Your task to perform on an android device: Open the map Image 0: 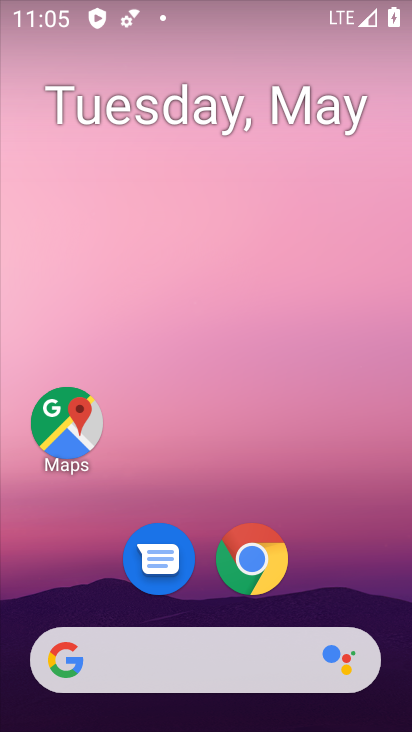
Step 0: drag from (366, 597) to (326, 115)
Your task to perform on an android device: Open the map Image 1: 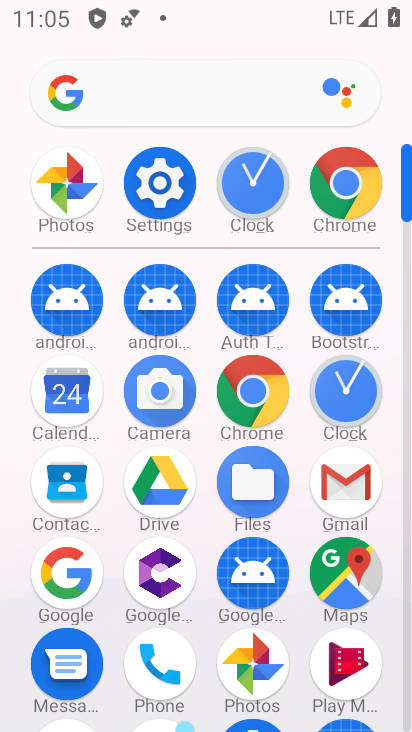
Step 1: click (338, 575)
Your task to perform on an android device: Open the map Image 2: 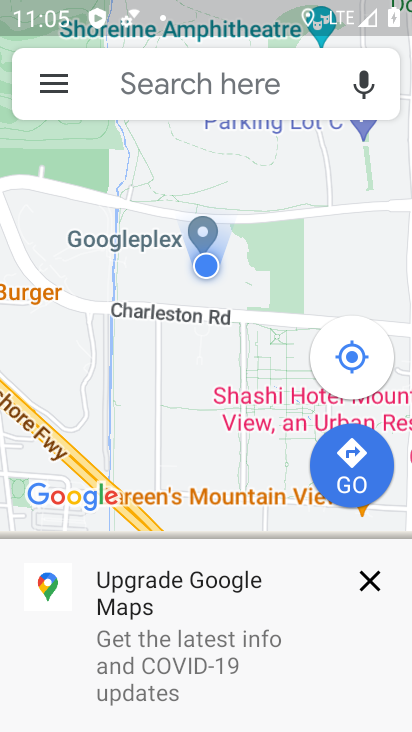
Step 2: task complete